Your task to perform on an android device: Go to Wikipedia Image 0: 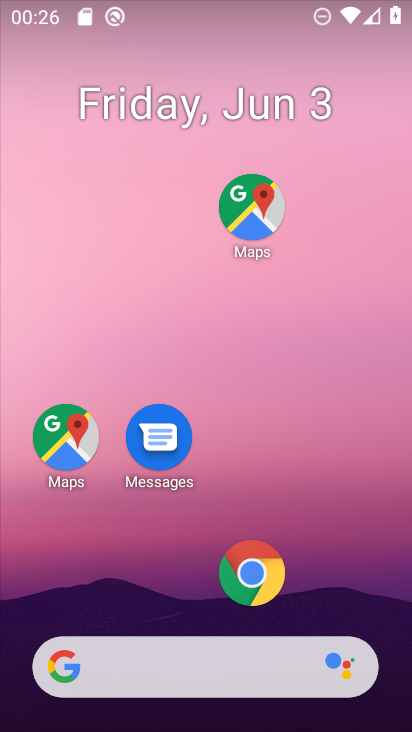
Step 0: click (262, 586)
Your task to perform on an android device: Go to Wikipedia Image 1: 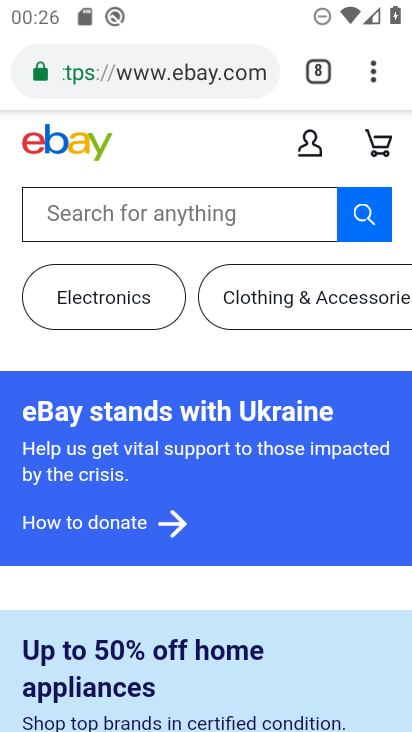
Step 1: click (319, 65)
Your task to perform on an android device: Go to Wikipedia Image 2: 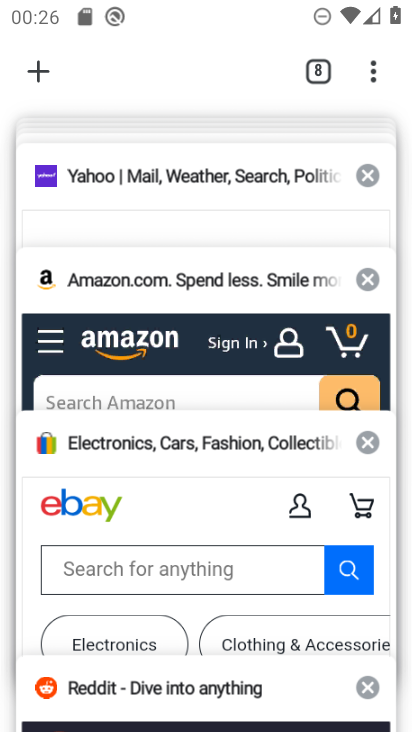
Step 2: drag from (196, 170) to (188, 397)
Your task to perform on an android device: Go to Wikipedia Image 3: 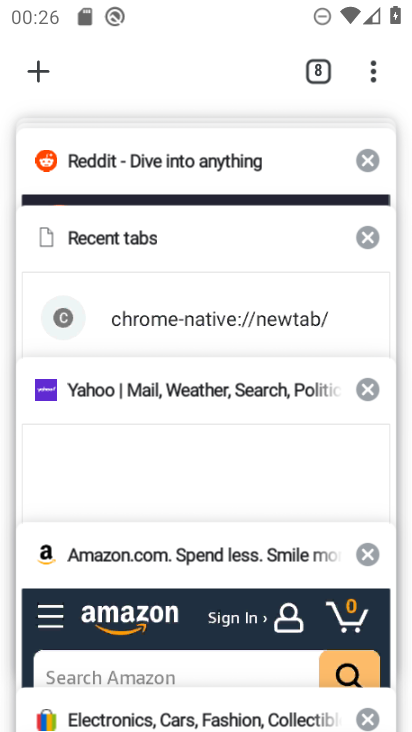
Step 3: drag from (223, 142) to (268, 550)
Your task to perform on an android device: Go to Wikipedia Image 4: 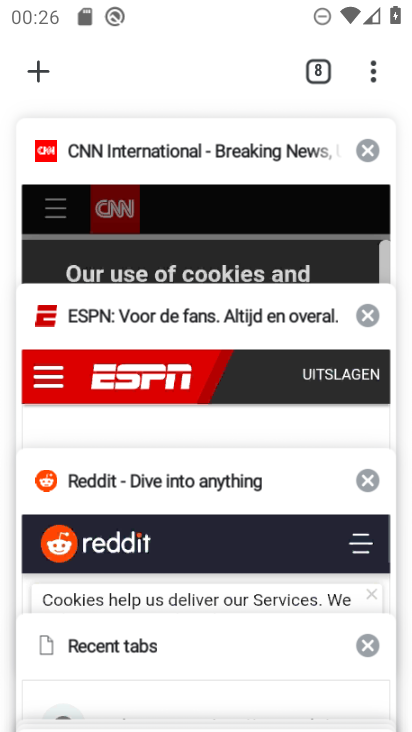
Step 4: click (35, 60)
Your task to perform on an android device: Go to Wikipedia Image 5: 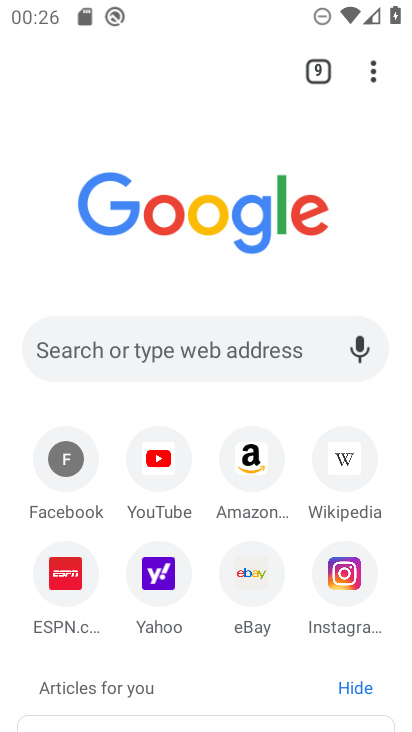
Step 5: click (356, 471)
Your task to perform on an android device: Go to Wikipedia Image 6: 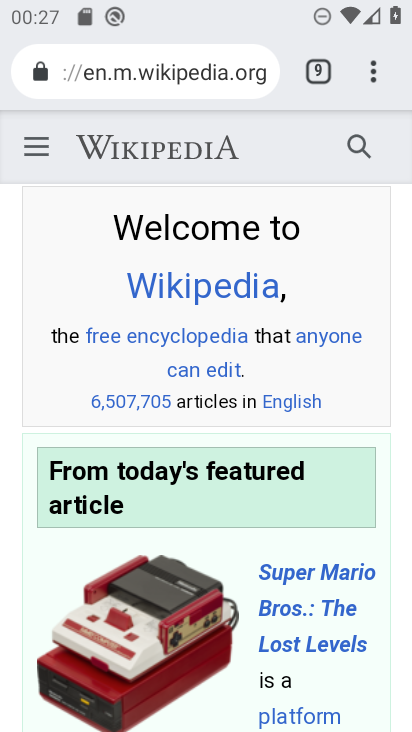
Step 6: task complete